Your task to perform on an android device: change timer sound Image 0: 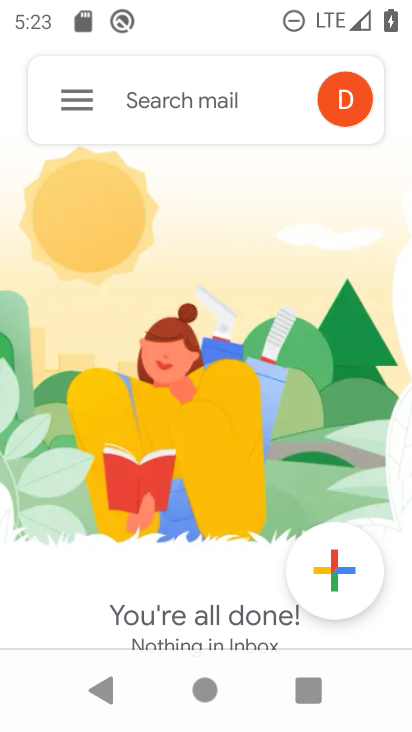
Step 0: press home button
Your task to perform on an android device: change timer sound Image 1: 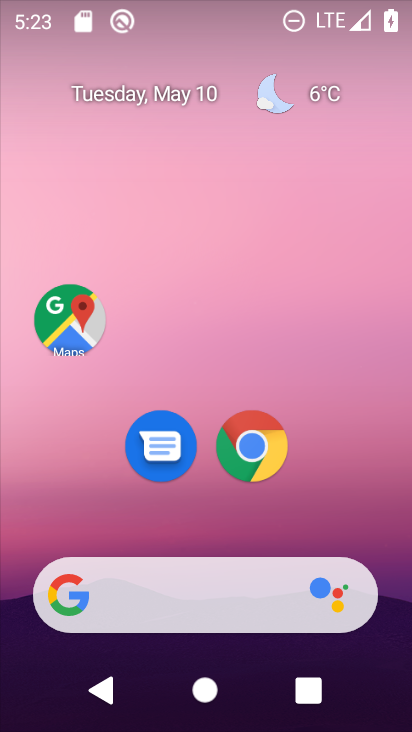
Step 1: drag from (328, 493) to (265, 61)
Your task to perform on an android device: change timer sound Image 2: 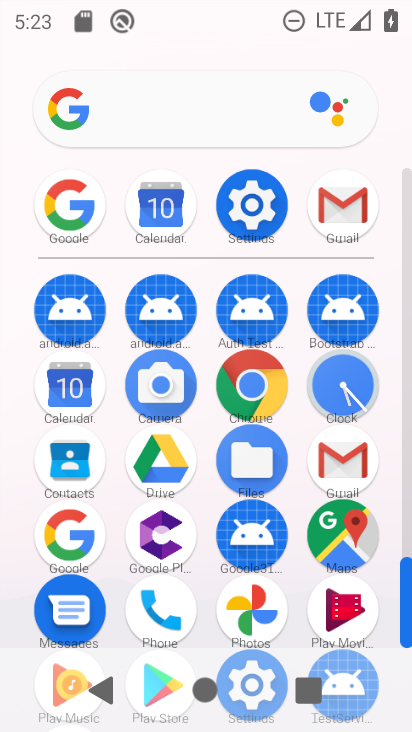
Step 2: click (347, 394)
Your task to perform on an android device: change timer sound Image 3: 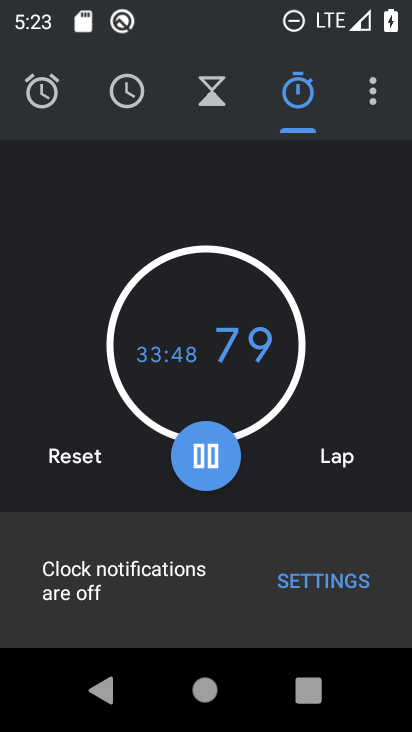
Step 3: click (375, 99)
Your task to perform on an android device: change timer sound Image 4: 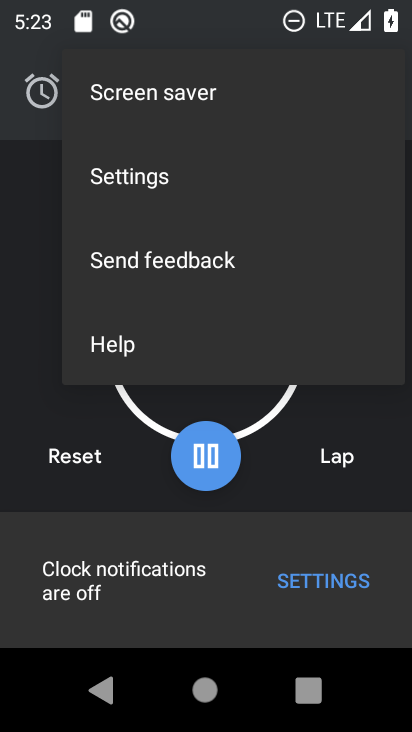
Step 4: click (154, 173)
Your task to perform on an android device: change timer sound Image 5: 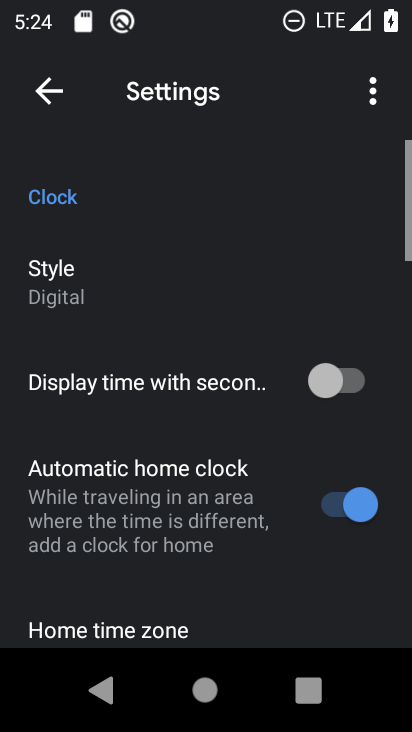
Step 5: drag from (197, 503) to (202, 123)
Your task to perform on an android device: change timer sound Image 6: 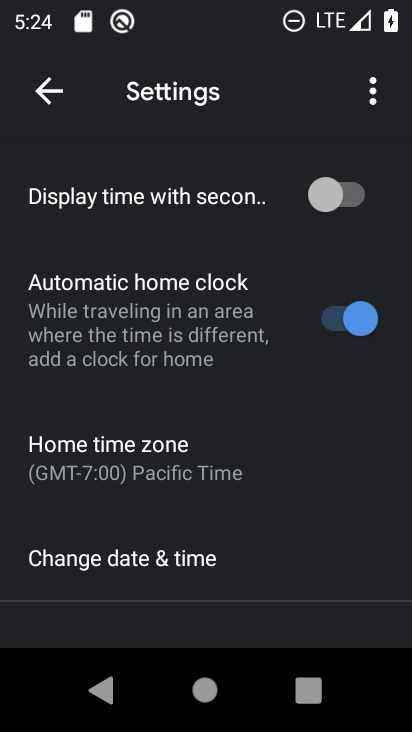
Step 6: drag from (162, 520) to (172, 303)
Your task to perform on an android device: change timer sound Image 7: 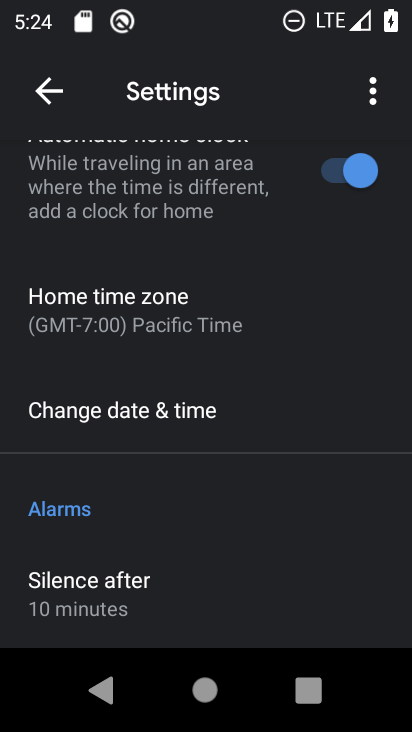
Step 7: drag from (255, 525) to (248, 157)
Your task to perform on an android device: change timer sound Image 8: 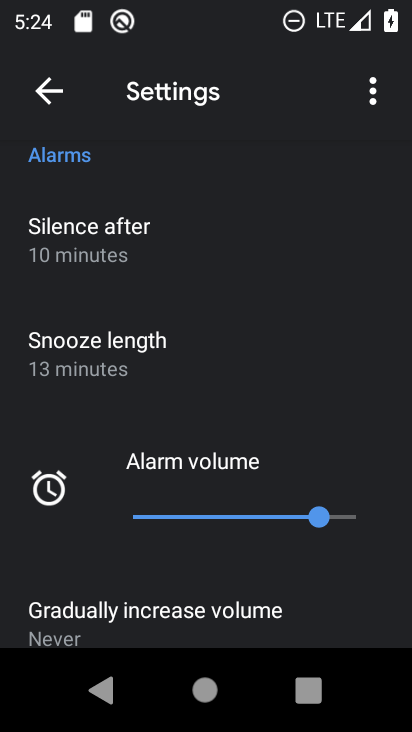
Step 8: drag from (228, 556) to (261, 243)
Your task to perform on an android device: change timer sound Image 9: 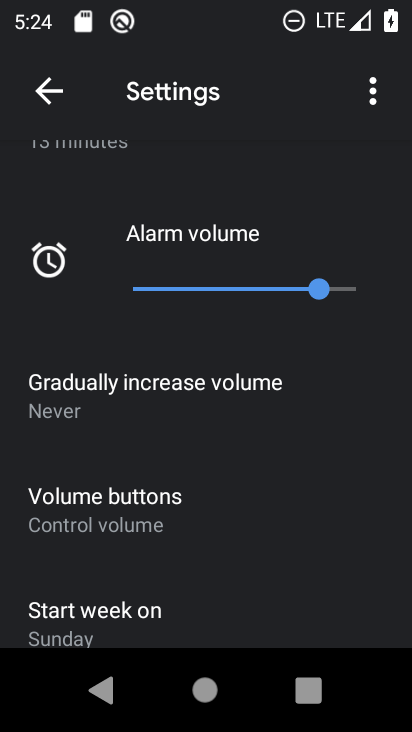
Step 9: drag from (210, 453) to (230, 229)
Your task to perform on an android device: change timer sound Image 10: 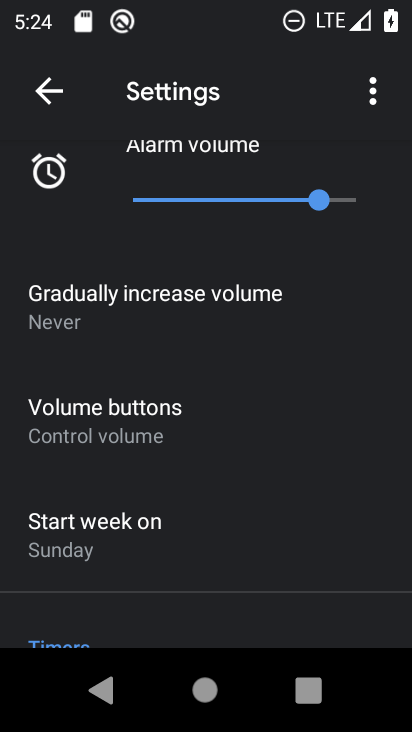
Step 10: drag from (215, 523) to (214, 229)
Your task to perform on an android device: change timer sound Image 11: 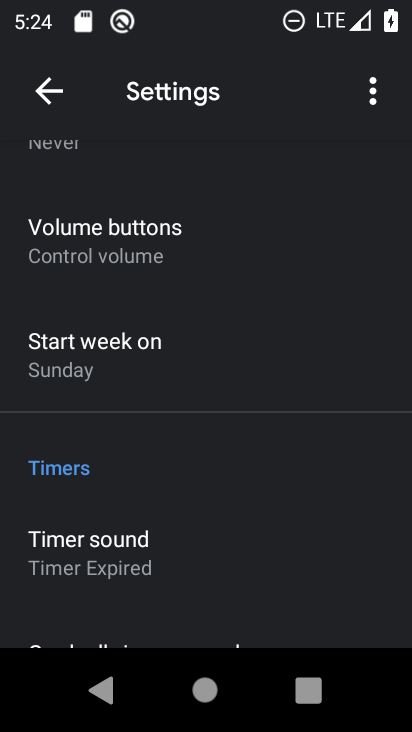
Step 11: click (152, 555)
Your task to perform on an android device: change timer sound Image 12: 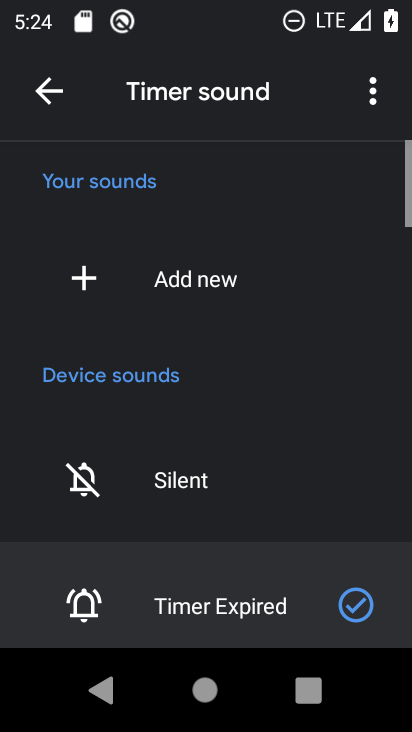
Step 12: drag from (276, 476) to (253, 177)
Your task to perform on an android device: change timer sound Image 13: 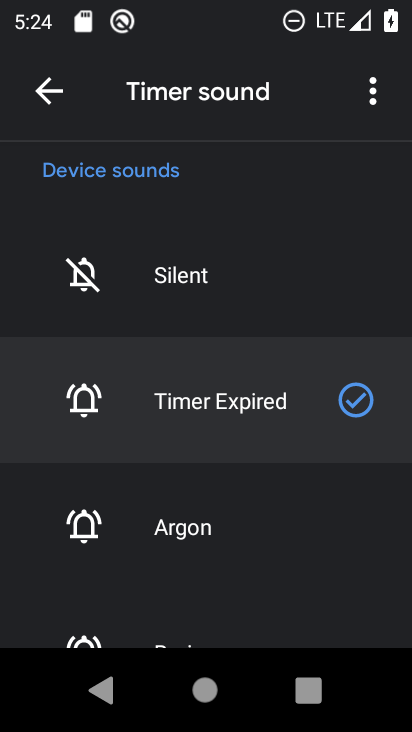
Step 13: click (238, 560)
Your task to perform on an android device: change timer sound Image 14: 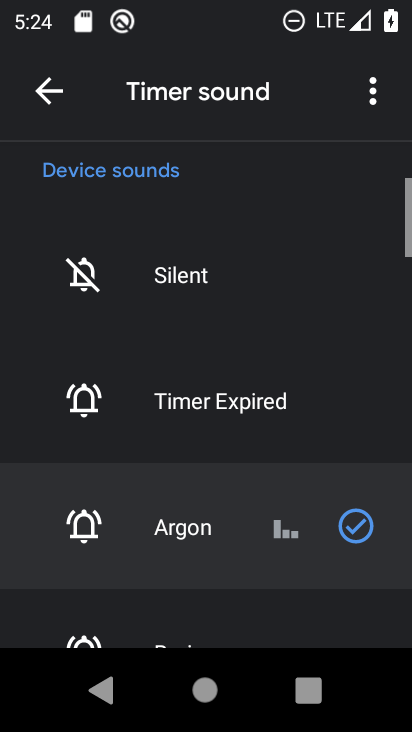
Step 14: task complete